Your task to perform on an android device: Go to location settings Image 0: 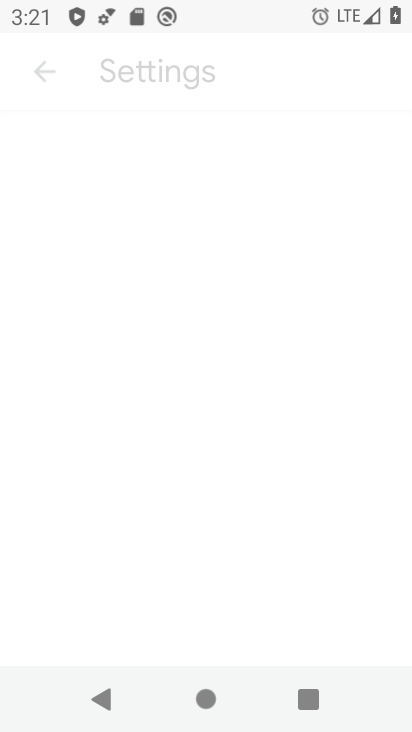
Step 0: drag from (209, 560) to (228, 11)
Your task to perform on an android device: Go to location settings Image 1: 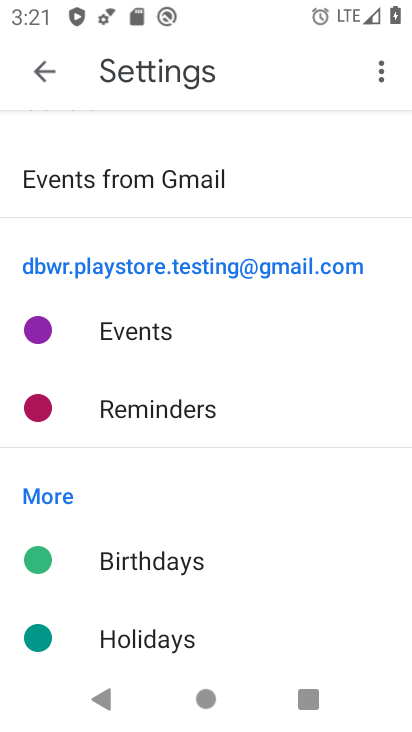
Step 1: press home button
Your task to perform on an android device: Go to location settings Image 2: 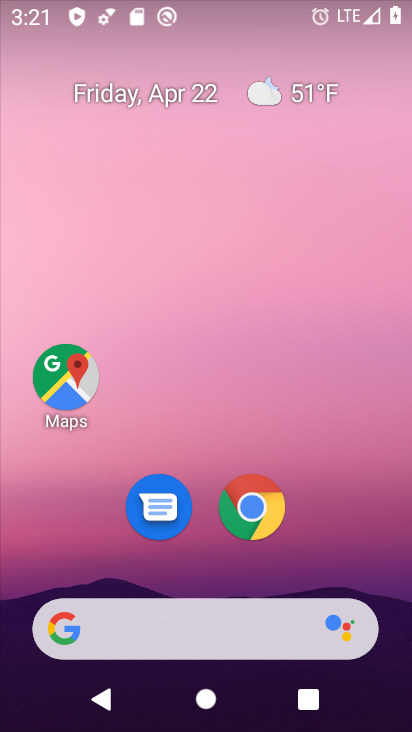
Step 2: drag from (201, 576) to (13, 274)
Your task to perform on an android device: Go to location settings Image 3: 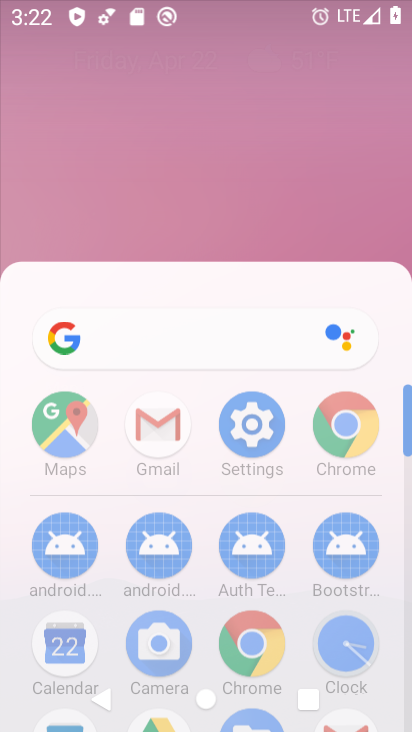
Step 3: click (267, 170)
Your task to perform on an android device: Go to location settings Image 4: 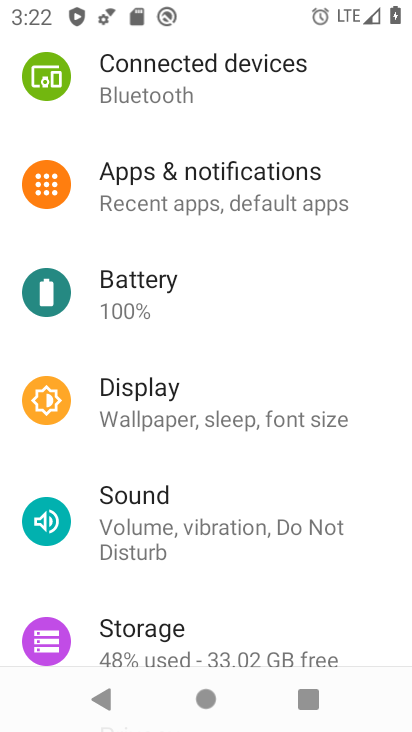
Step 4: drag from (178, 535) to (213, 27)
Your task to perform on an android device: Go to location settings Image 5: 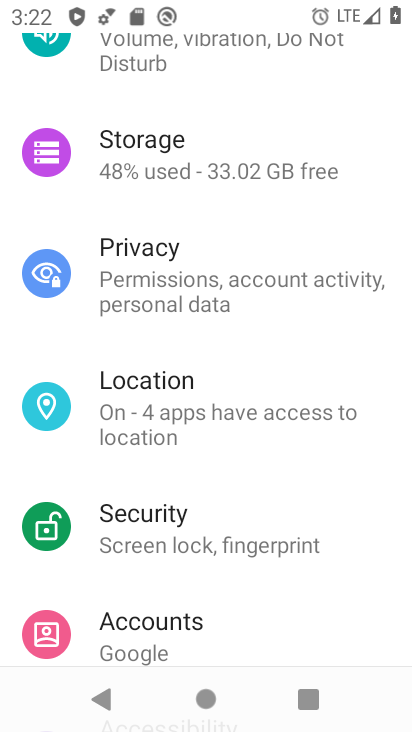
Step 5: click (138, 396)
Your task to perform on an android device: Go to location settings Image 6: 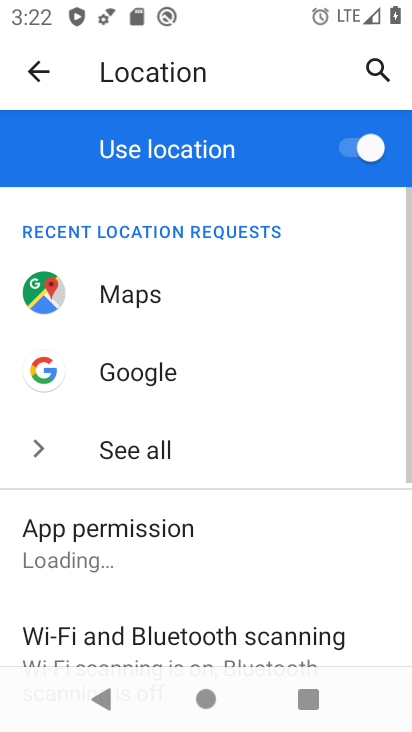
Step 6: task complete